Your task to perform on an android device: What's a good restaurant near me? Image 0: 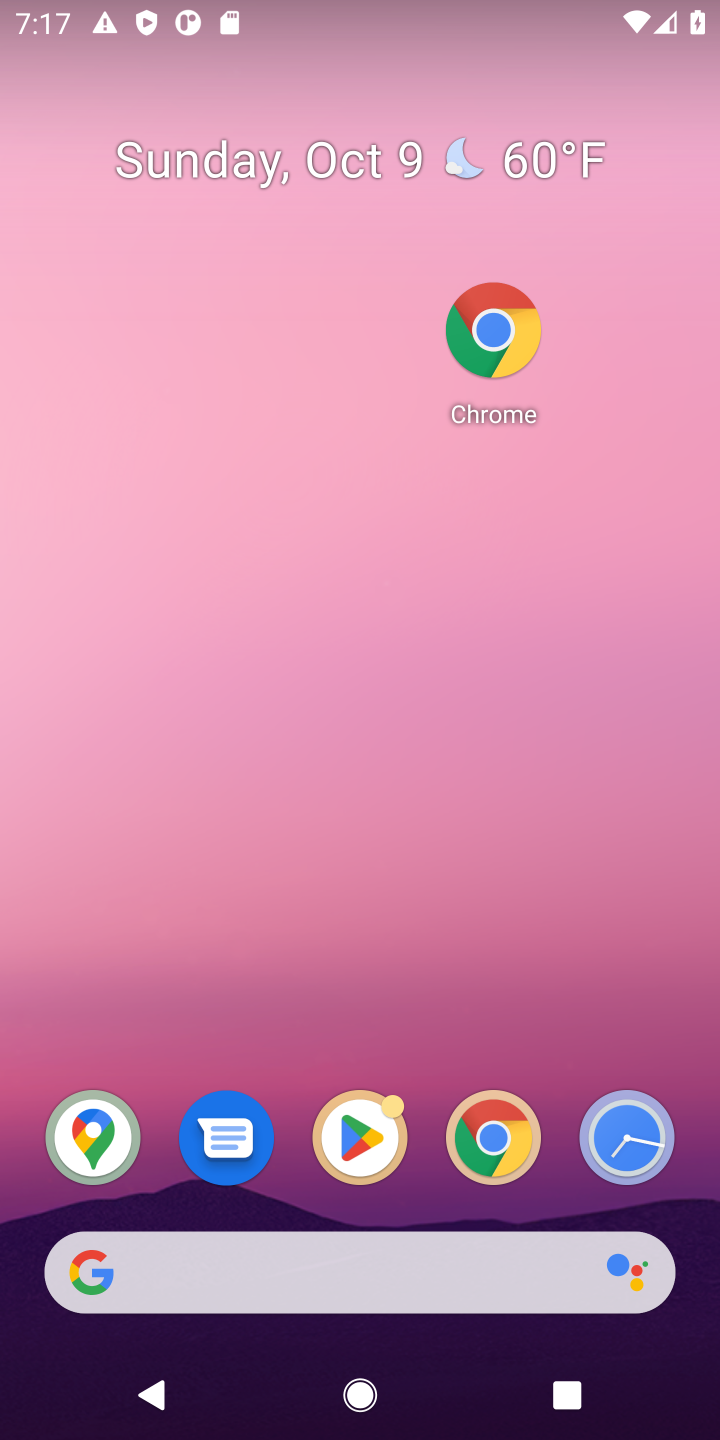
Step 0: drag from (426, 1192) to (443, 686)
Your task to perform on an android device: What's a good restaurant near me? Image 1: 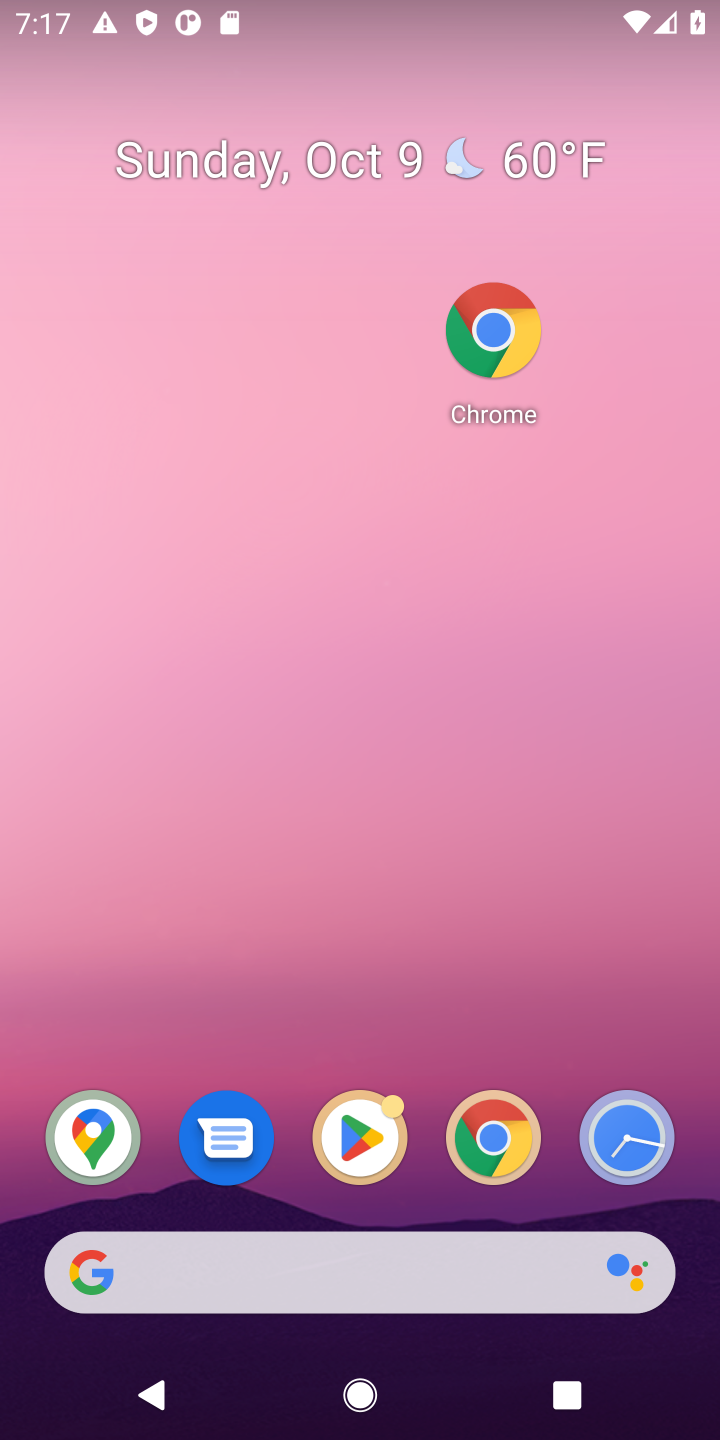
Step 1: drag from (425, 934) to (365, 280)
Your task to perform on an android device: What's a good restaurant near me? Image 2: 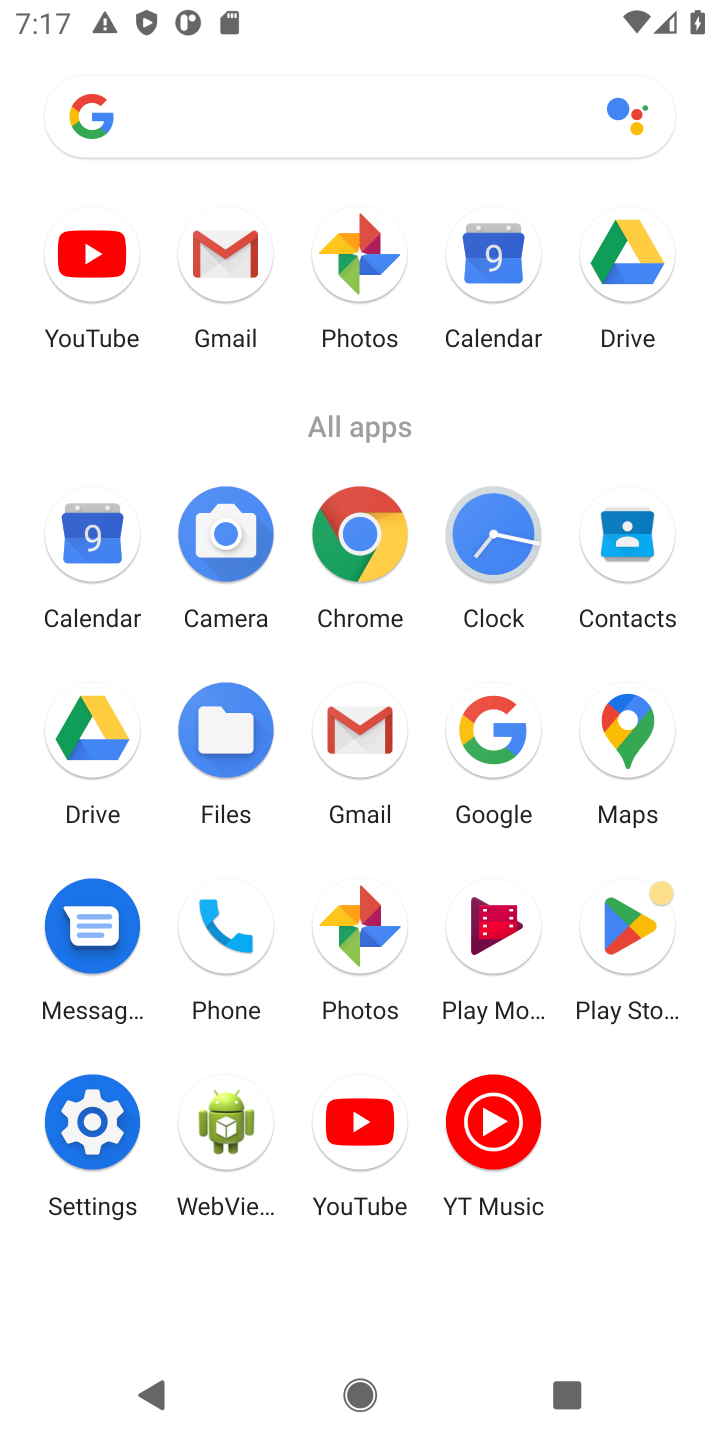
Step 2: click (371, 563)
Your task to perform on an android device: What's a good restaurant near me? Image 3: 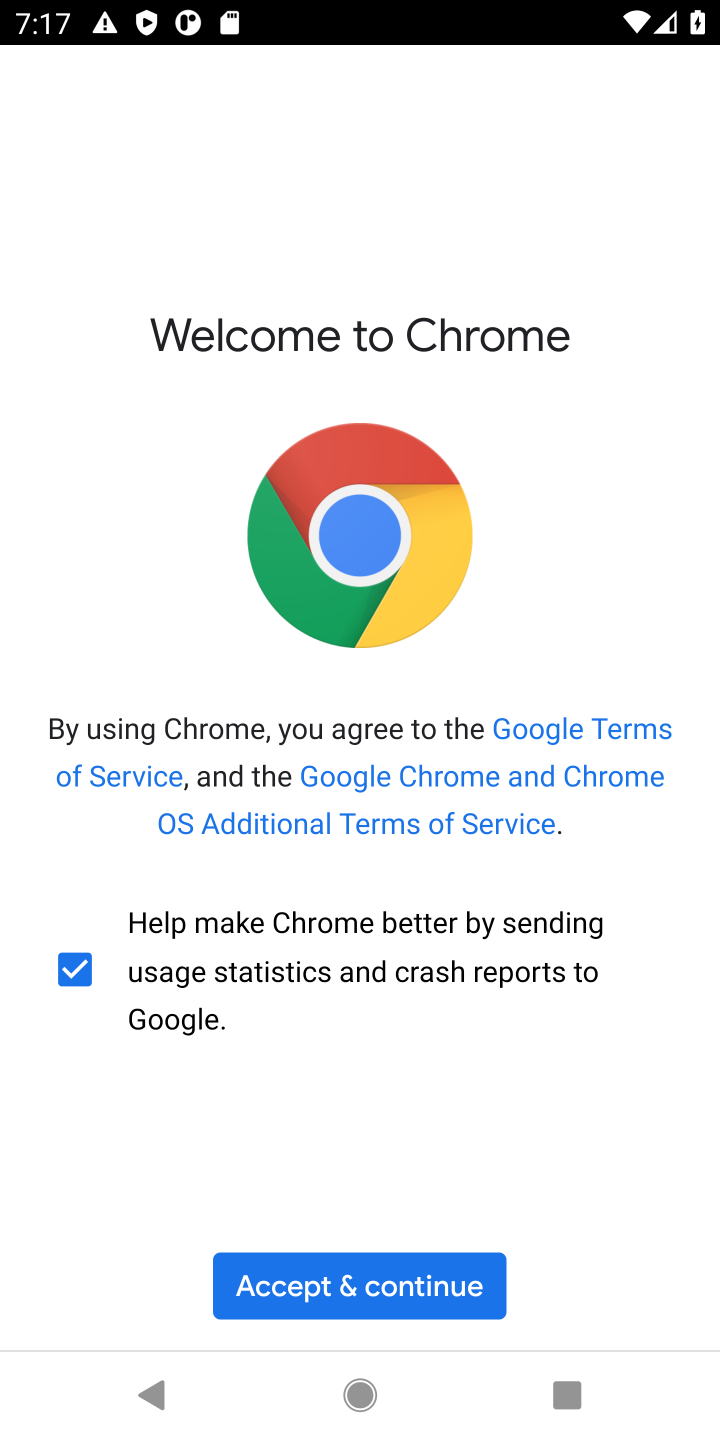
Step 3: click (287, 1291)
Your task to perform on an android device: What's a good restaurant near me? Image 4: 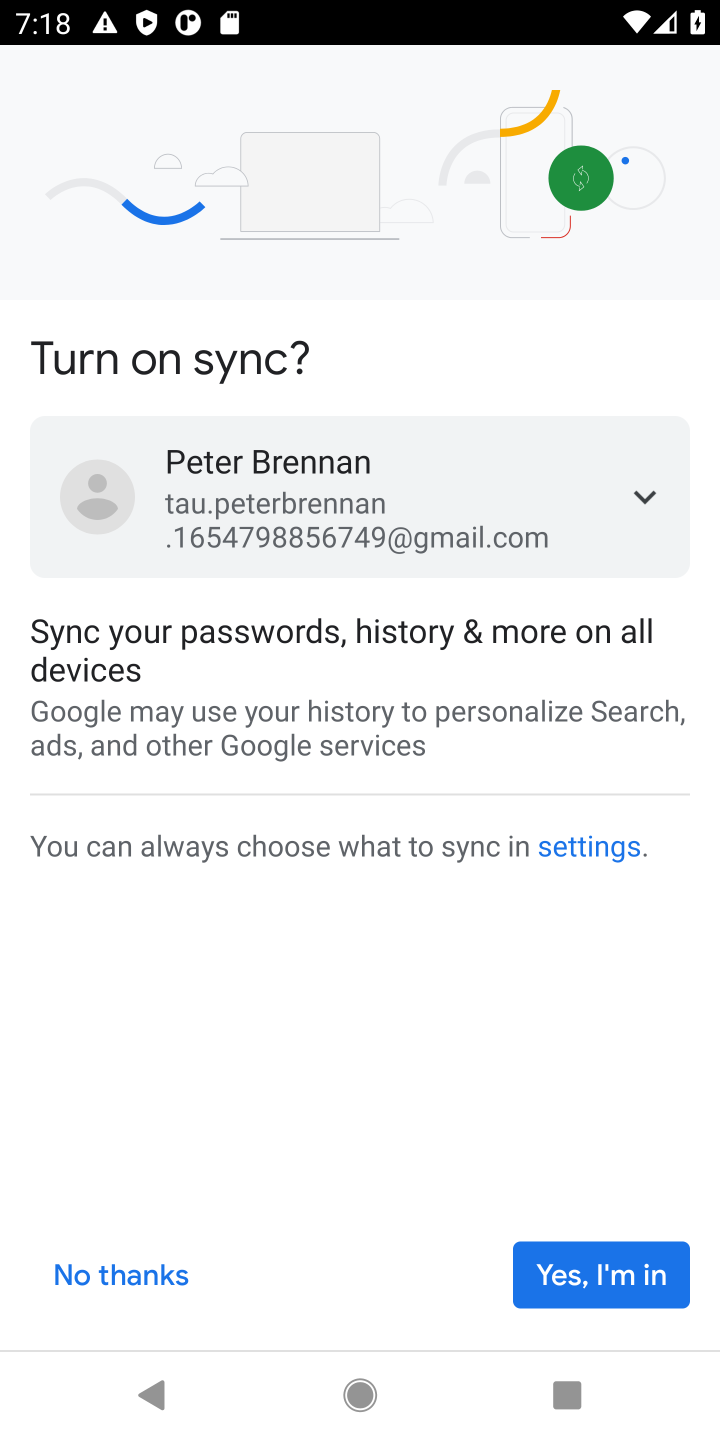
Step 4: click (168, 1269)
Your task to perform on an android device: What's a good restaurant near me? Image 5: 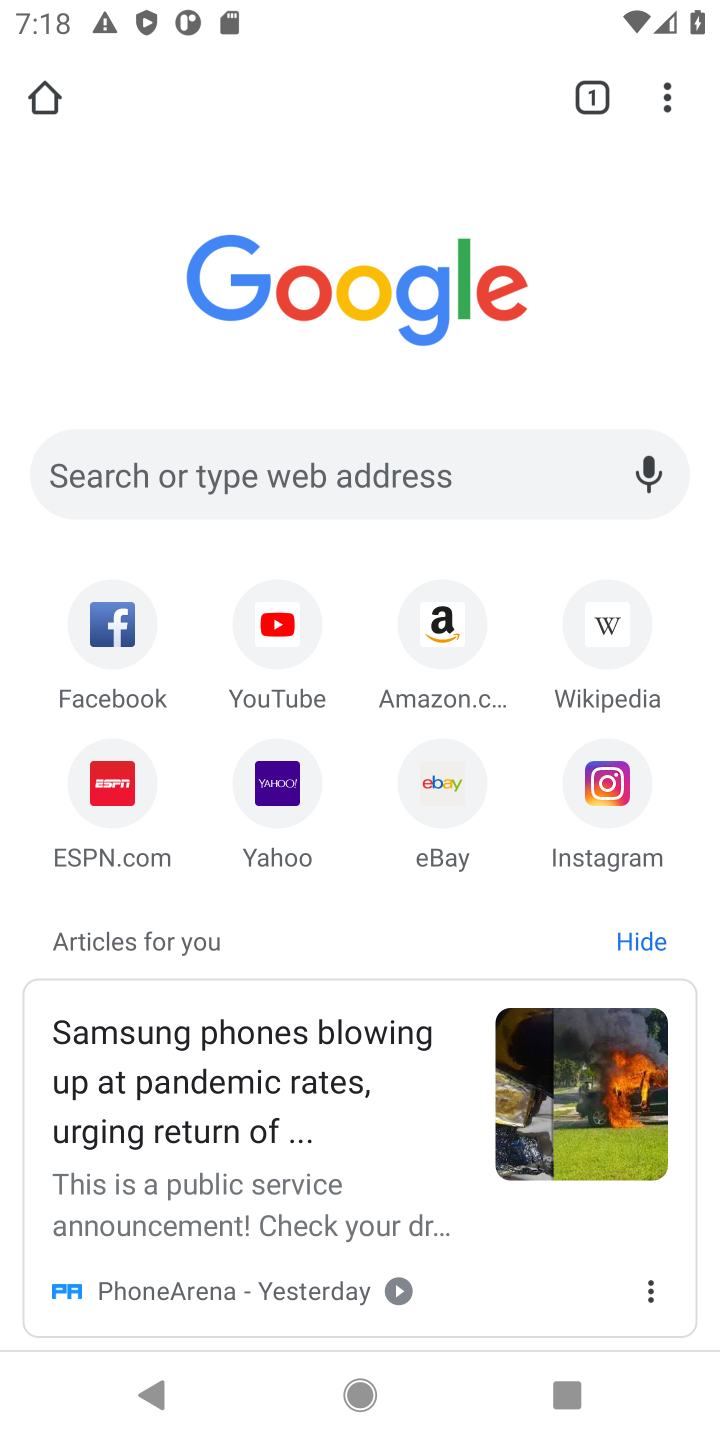
Step 5: click (390, 492)
Your task to perform on an android device: What's a good restaurant near me? Image 6: 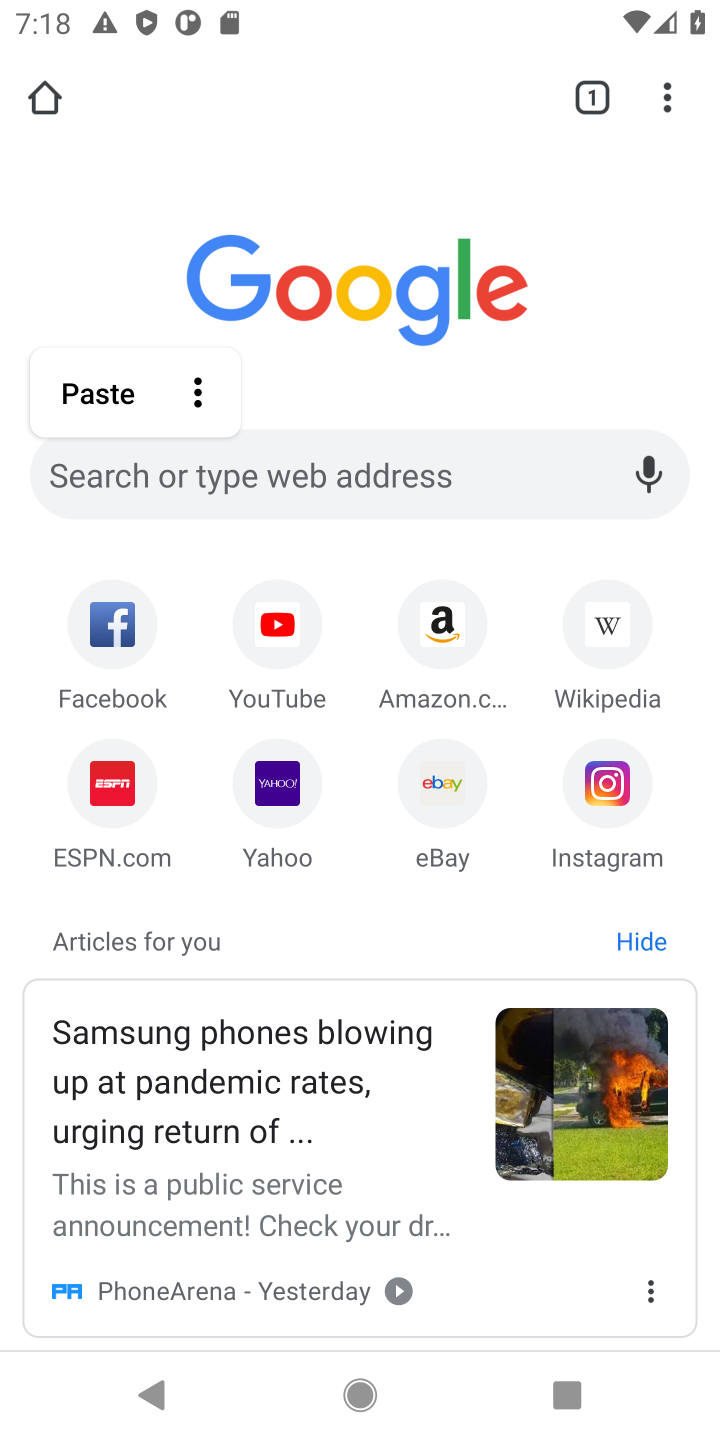
Step 6: type "good restaurant near me"
Your task to perform on an android device: What's a good restaurant near me? Image 7: 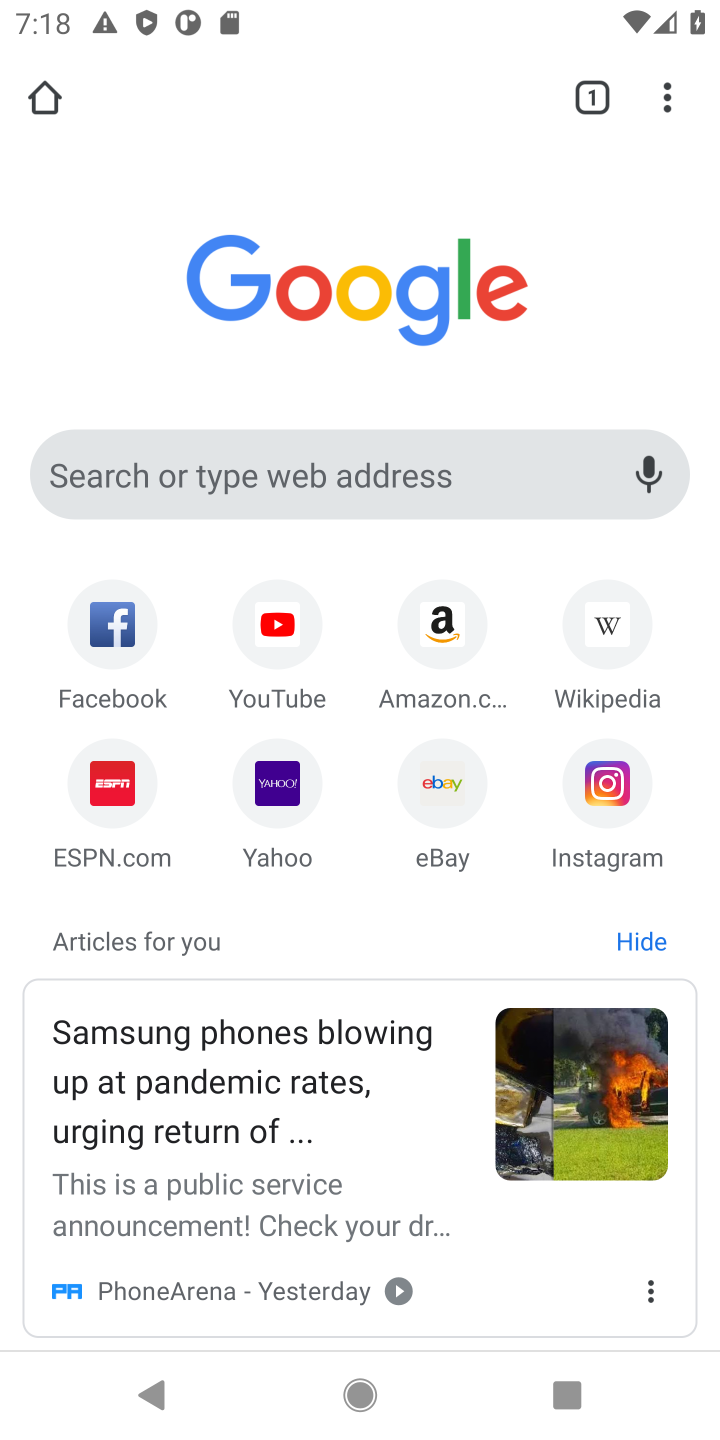
Step 7: type ""
Your task to perform on an android device: What's a good restaurant near me? Image 8: 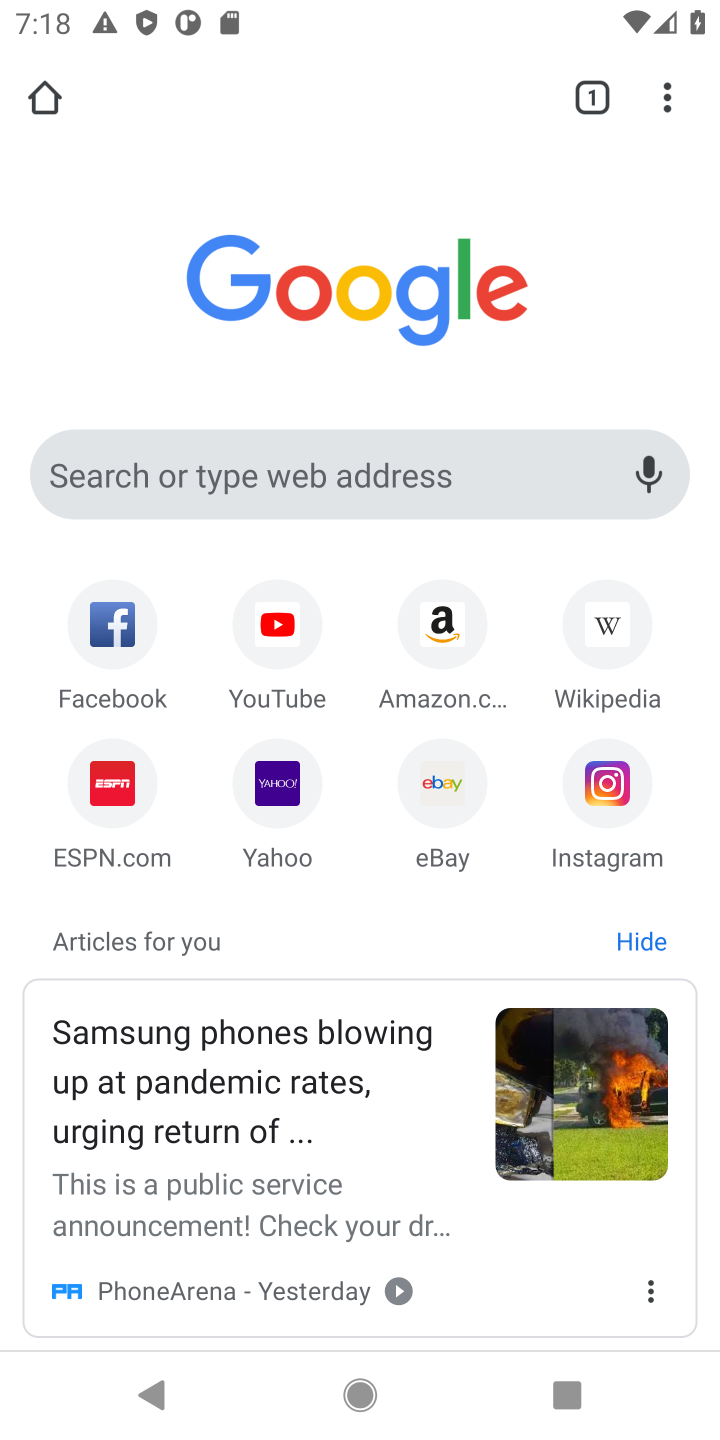
Step 8: press enter
Your task to perform on an android device: What's a good restaurant near me? Image 9: 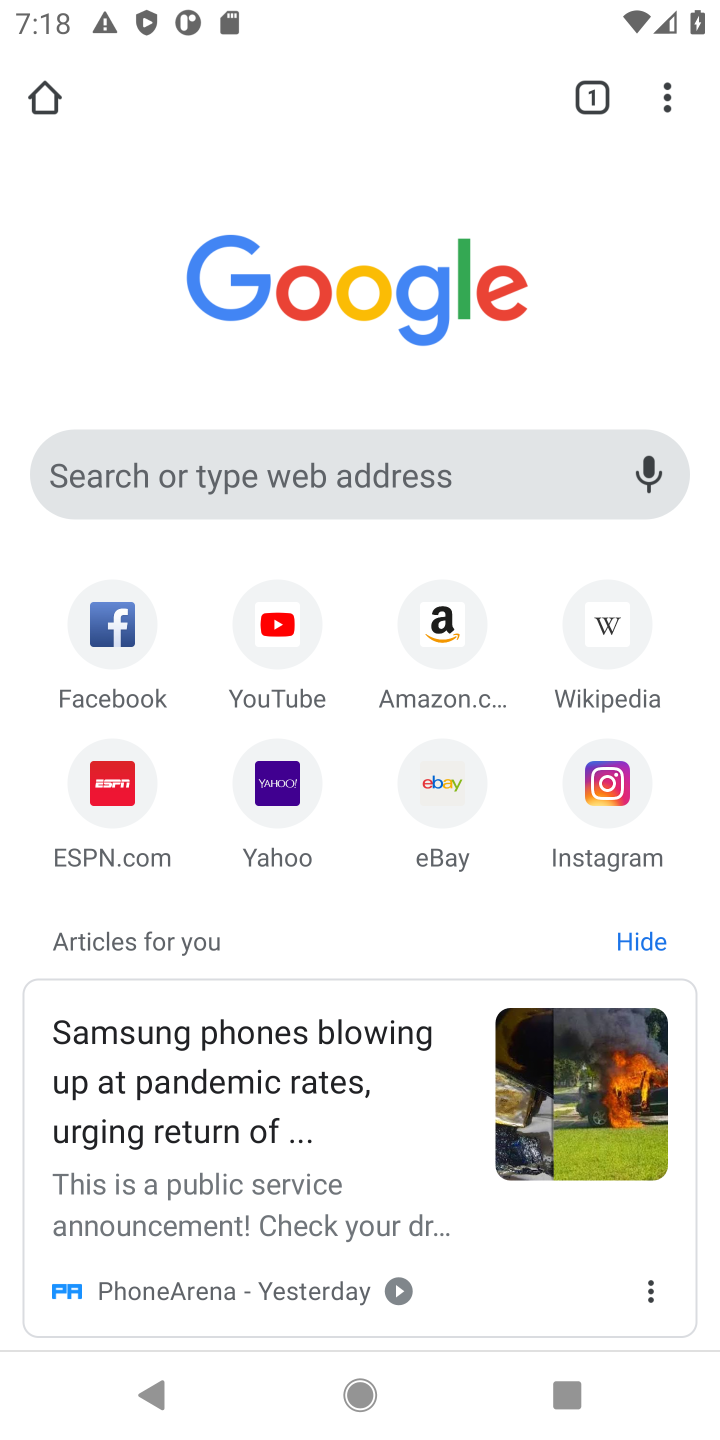
Step 9: click (289, 472)
Your task to perform on an android device: What's a good restaurant near me? Image 10: 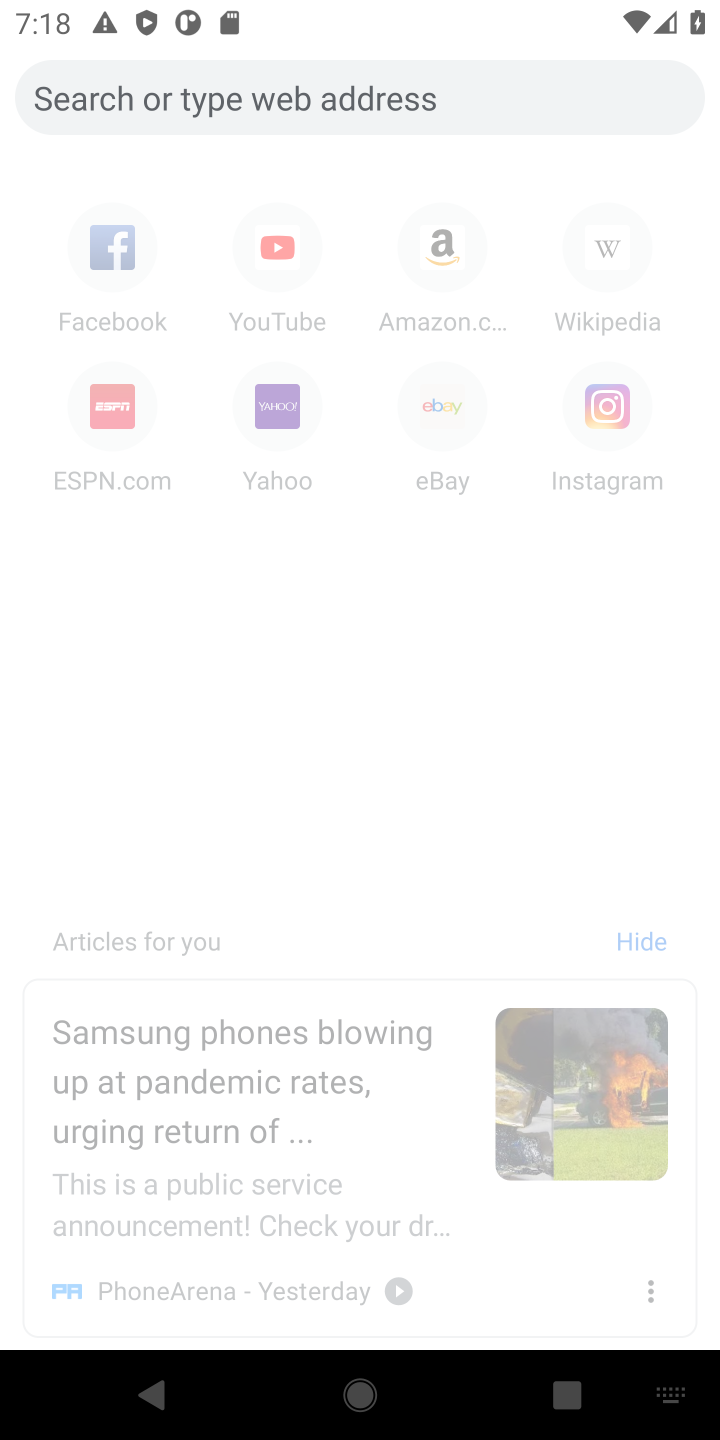
Step 10: type "good restaurant near me"
Your task to perform on an android device: What's a good restaurant near me? Image 11: 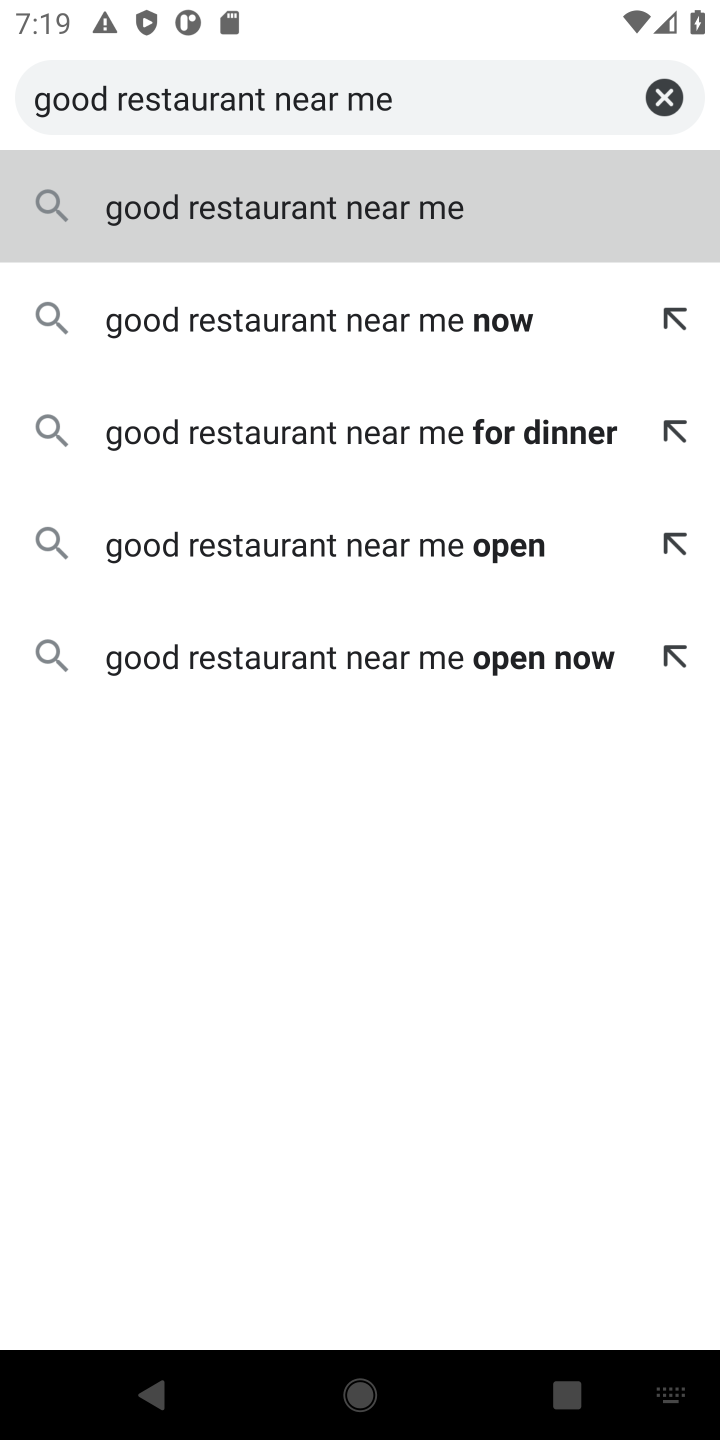
Step 11: press enter
Your task to perform on an android device: What's a good restaurant near me? Image 12: 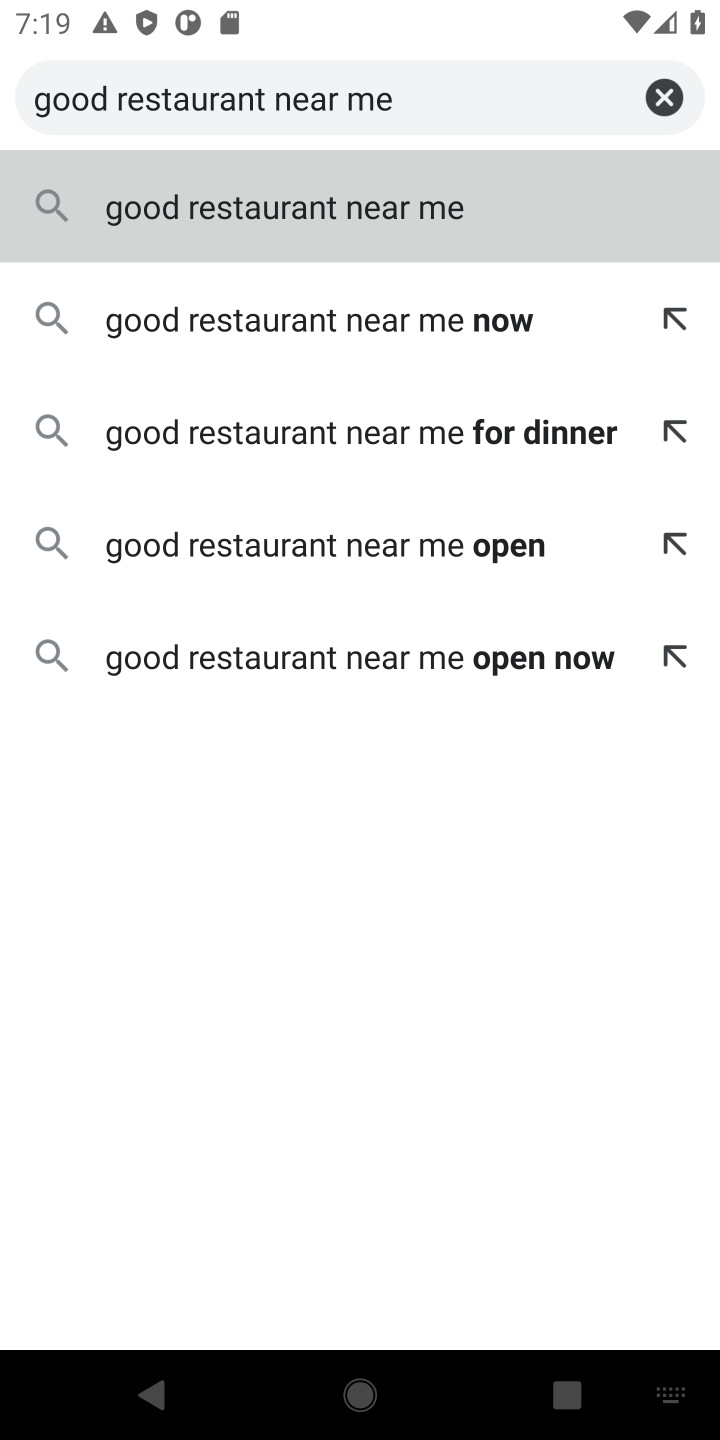
Step 12: type ""
Your task to perform on an android device: What's a good restaurant near me? Image 13: 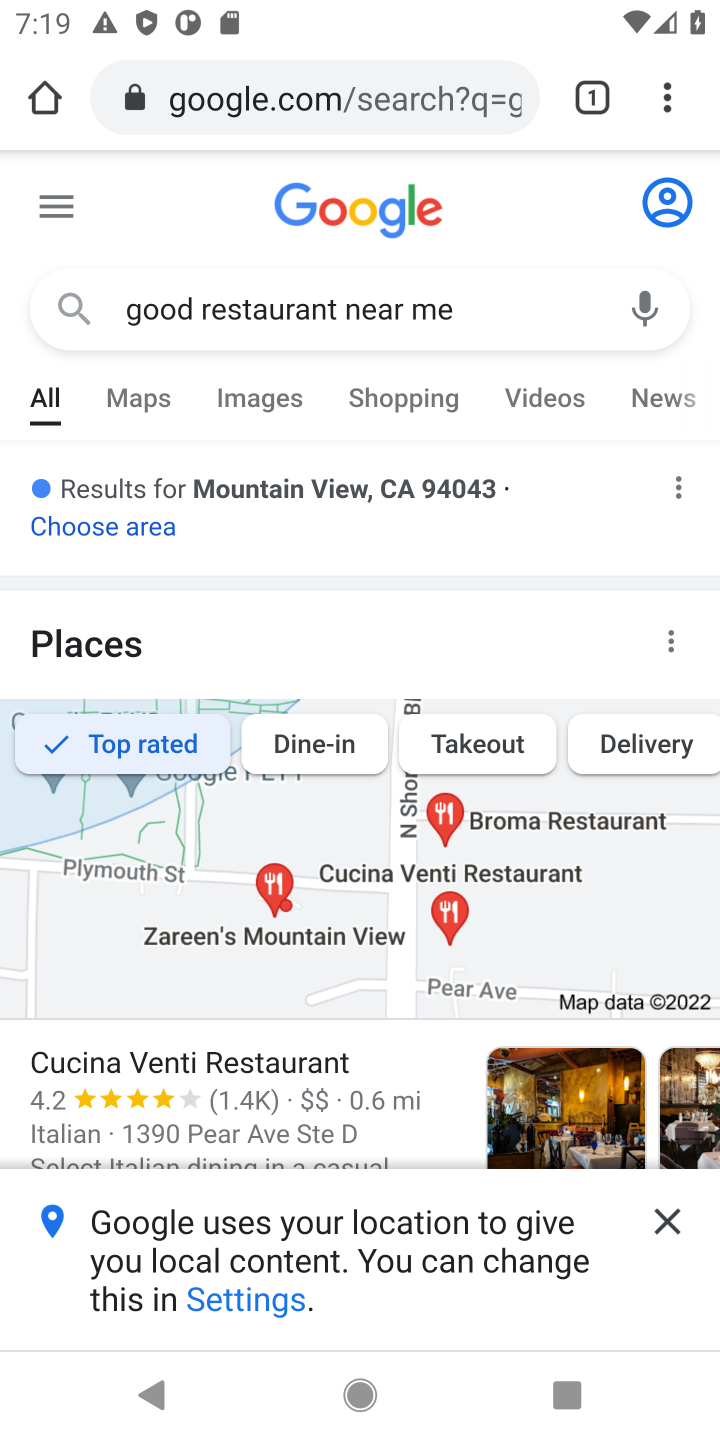
Step 13: click (665, 1215)
Your task to perform on an android device: What's a good restaurant near me? Image 14: 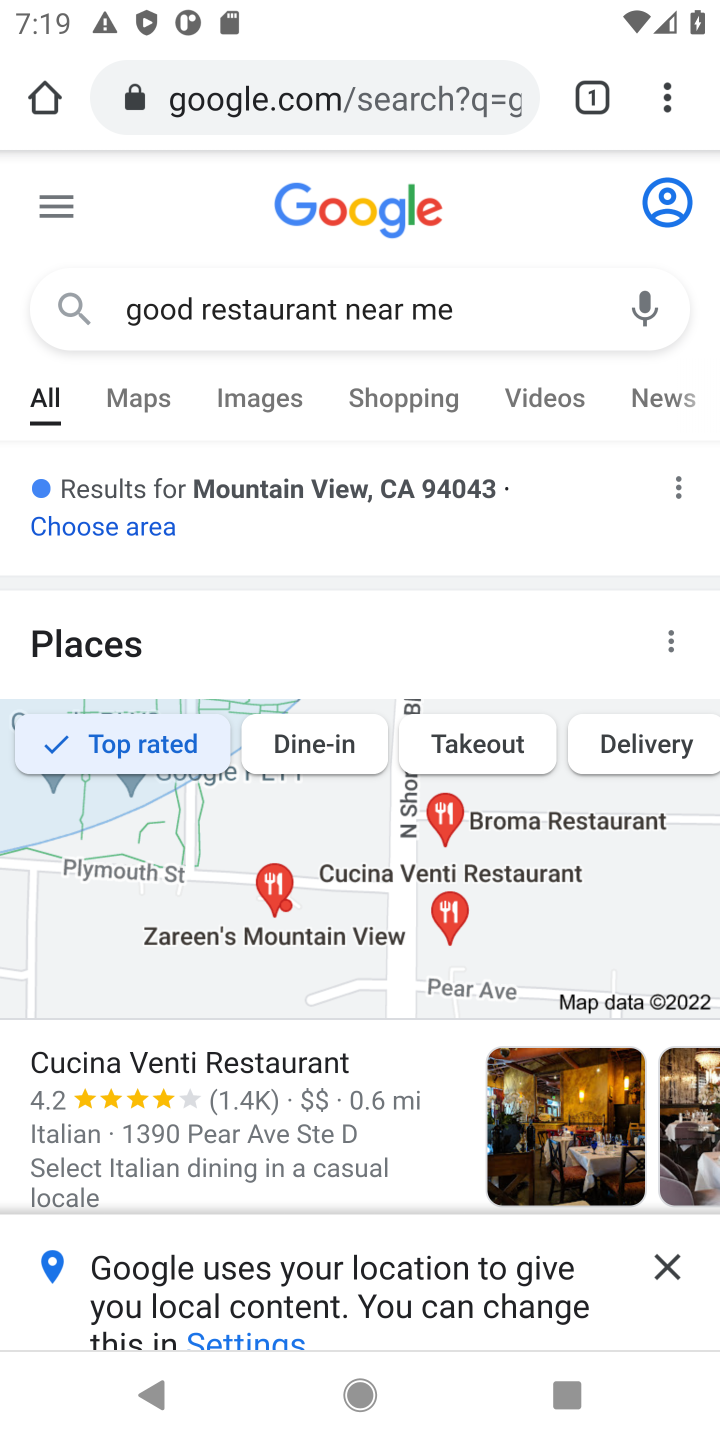
Step 14: drag from (414, 1127) to (473, 795)
Your task to perform on an android device: What's a good restaurant near me? Image 15: 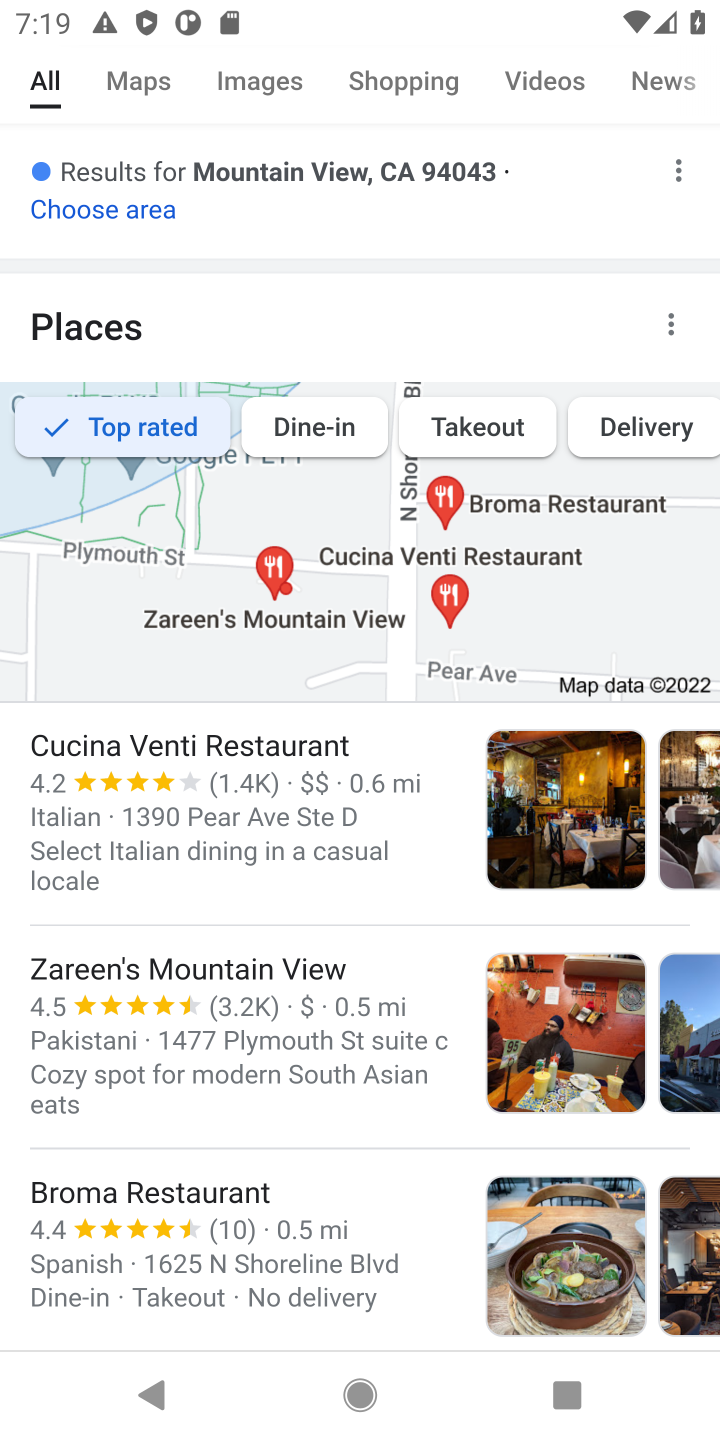
Step 15: drag from (388, 1228) to (448, 749)
Your task to perform on an android device: What's a good restaurant near me? Image 16: 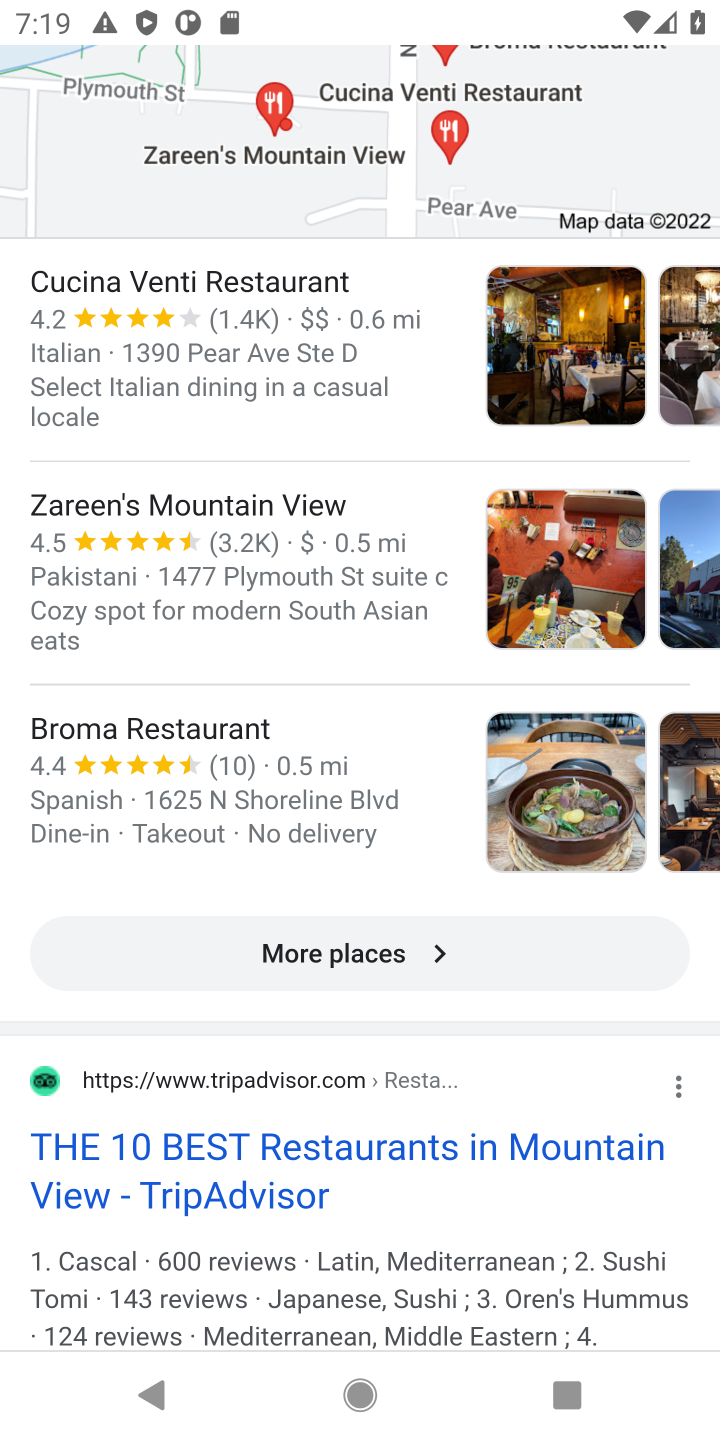
Step 16: click (363, 956)
Your task to perform on an android device: What's a good restaurant near me? Image 17: 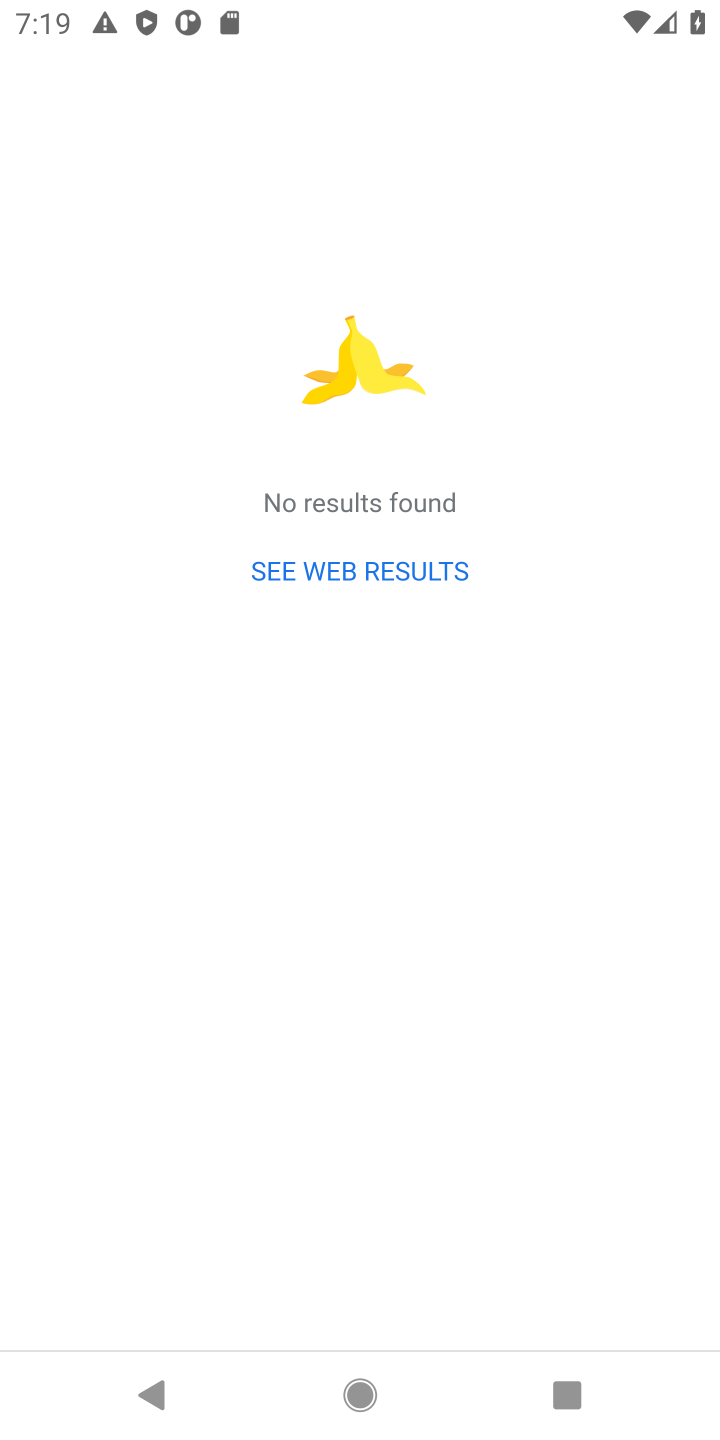
Step 17: task complete